Your task to perform on an android device: Go to ESPN.com Image 0: 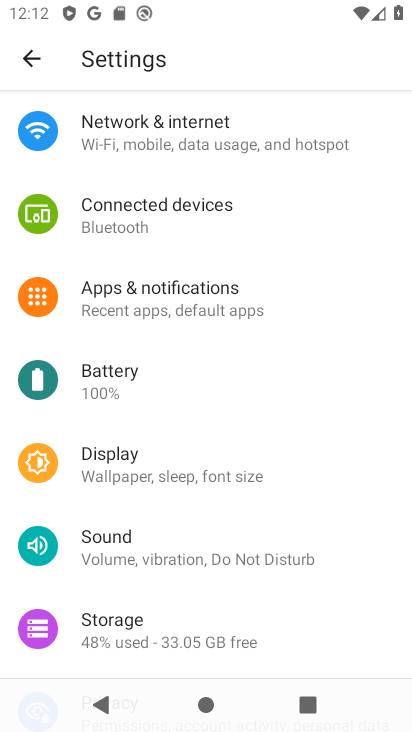
Step 0: press back button
Your task to perform on an android device: Go to ESPN.com Image 1: 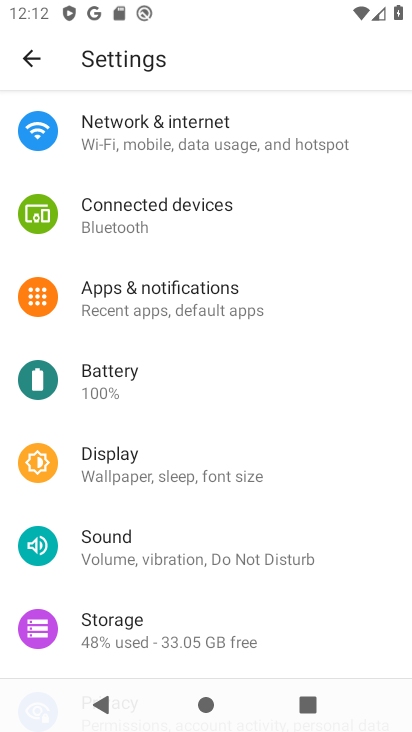
Step 1: press back button
Your task to perform on an android device: Go to ESPN.com Image 2: 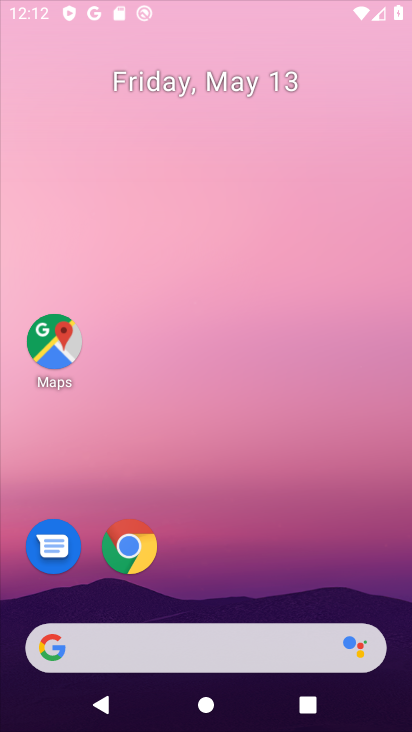
Step 2: press back button
Your task to perform on an android device: Go to ESPN.com Image 3: 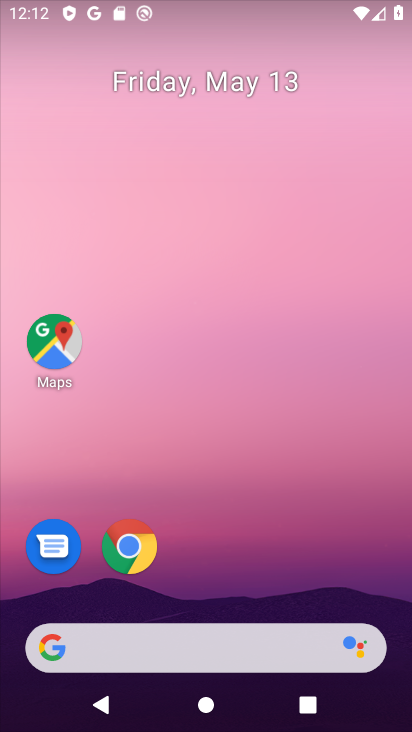
Step 3: press back button
Your task to perform on an android device: Go to ESPN.com Image 4: 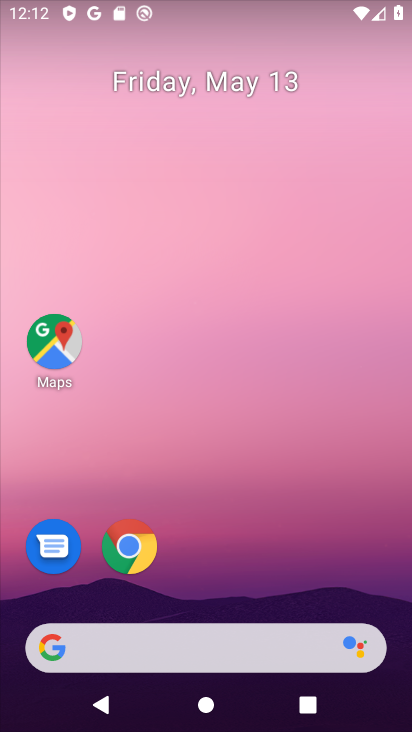
Step 4: drag from (281, 564) to (170, 81)
Your task to perform on an android device: Go to ESPN.com Image 5: 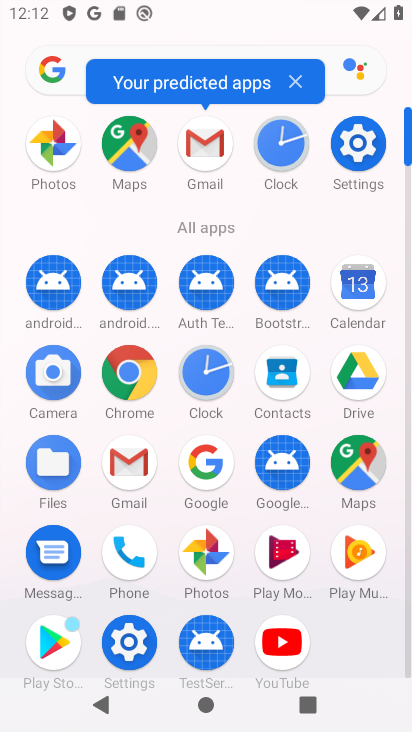
Step 5: click (129, 378)
Your task to perform on an android device: Go to ESPN.com Image 6: 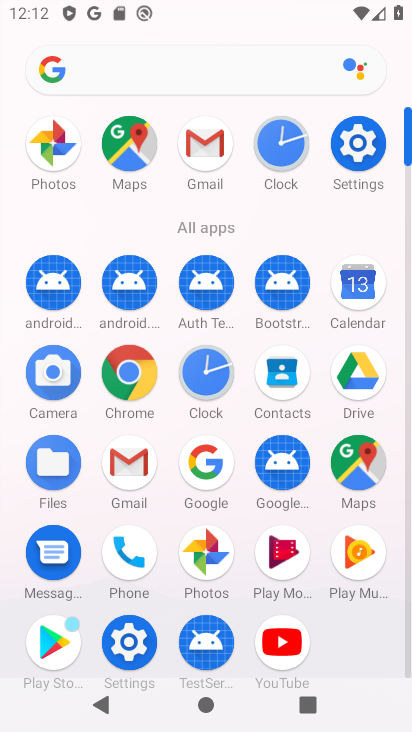
Step 6: click (129, 378)
Your task to perform on an android device: Go to ESPN.com Image 7: 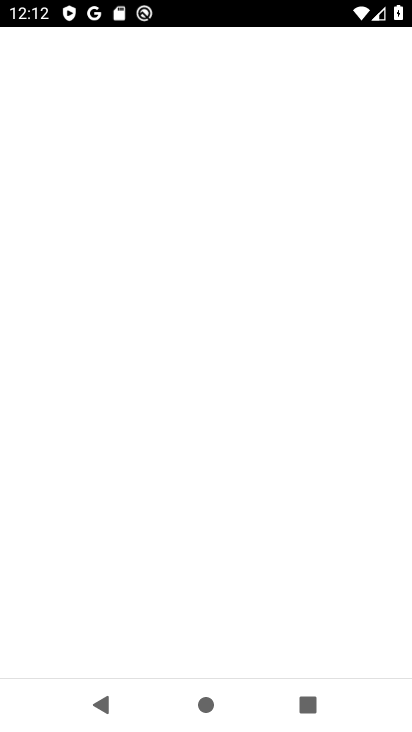
Step 7: click (128, 375)
Your task to perform on an android device: Go to ESPN.com Image 8: 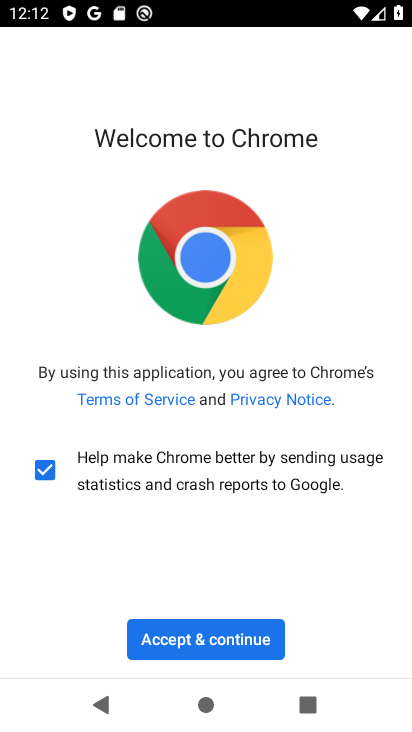
Step 8: click (221, 641)
Your task to perform on an android device: Go to ESPN.com Image 9: 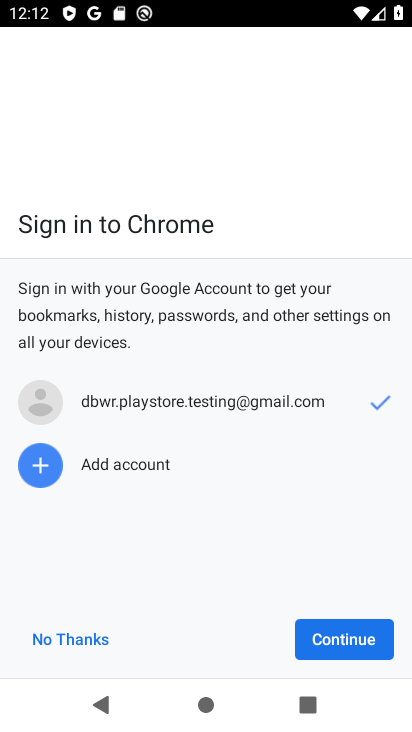
Step 9: click (205, 647)
Your task to perform on an android device: Go to ESPN.com Image 10: 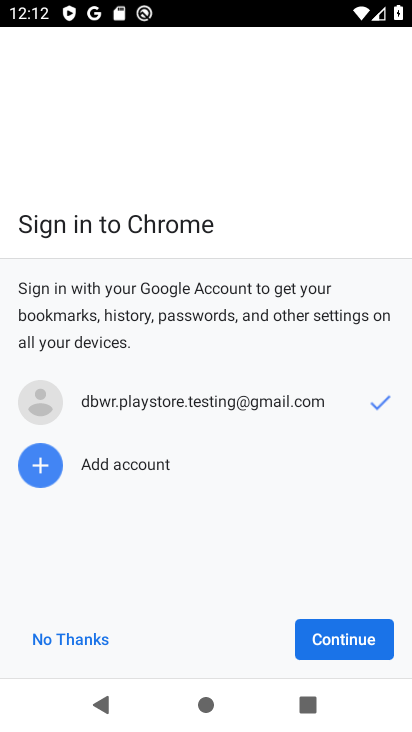
Step 10: click (326, 646)
Your task to perform on an android device: Go to ESPN.com Image 11: 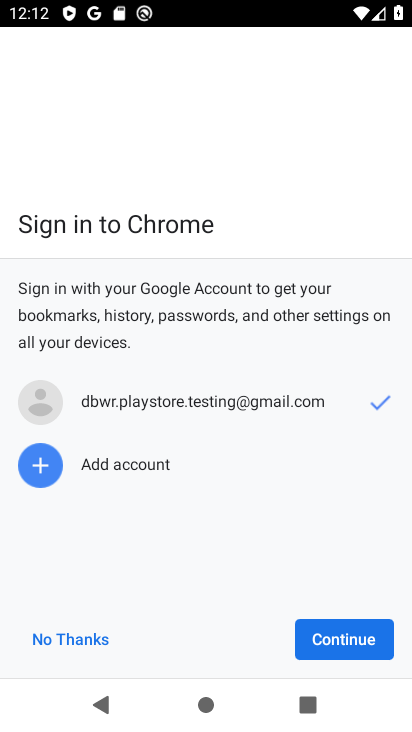
Step 11: click (327, 643)
Your task to perform on an android device: Go to ESPN.com Image 12: 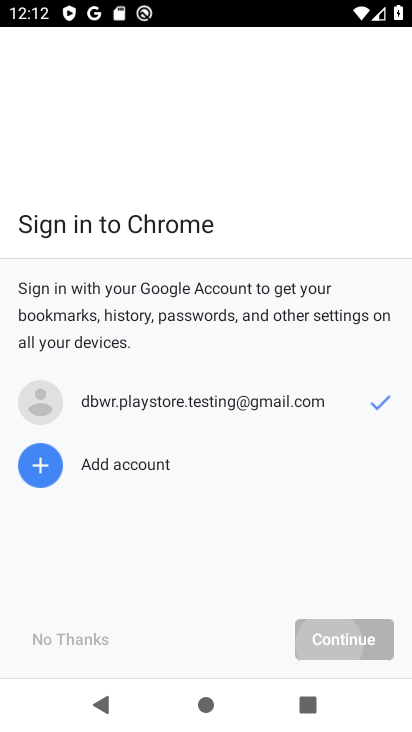
Step 12: click (331, 648)
Your task to perform on an android device: Go to ESPN.com Image 13: 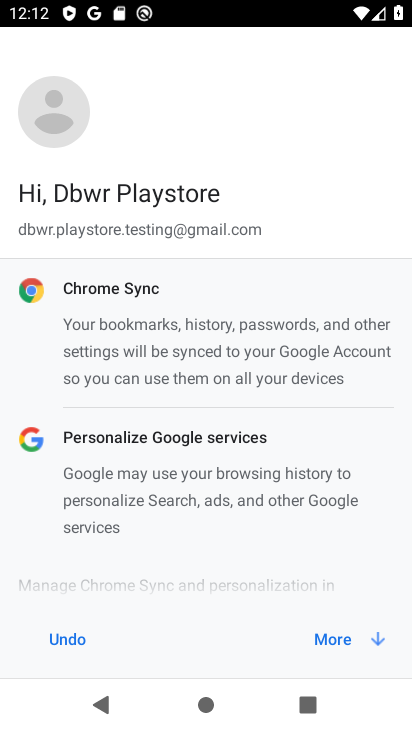
Step 13: click (331, 648)
Your task to perform on an android device: Go to ESPN.com Image 14: 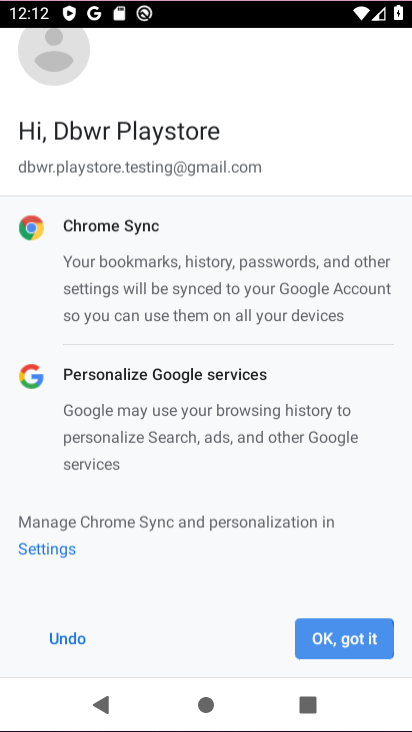
Step 14: click (340, 644)
Your task to perform on an android device: Go to ESPN.com Image 15: 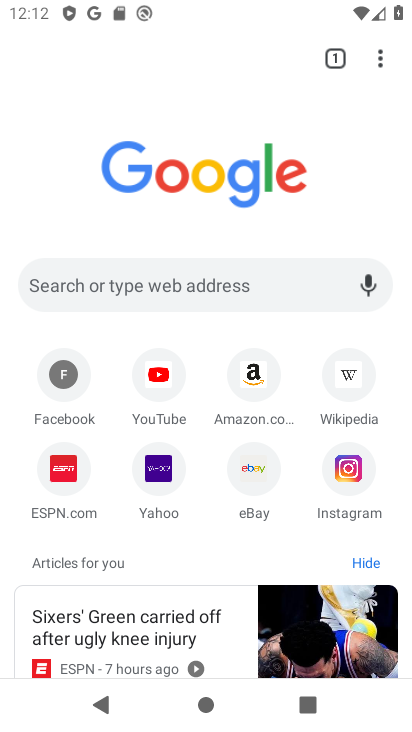
Step 15: click (73, 465)
Your task to perform on an android device: Go to ESPN.com Image 16: 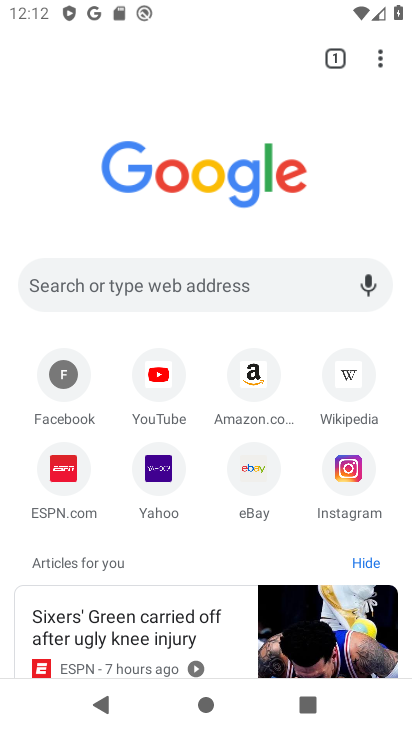
Step 16: task complete